Your task to perform on an android device: Open Google Maps Image 0: 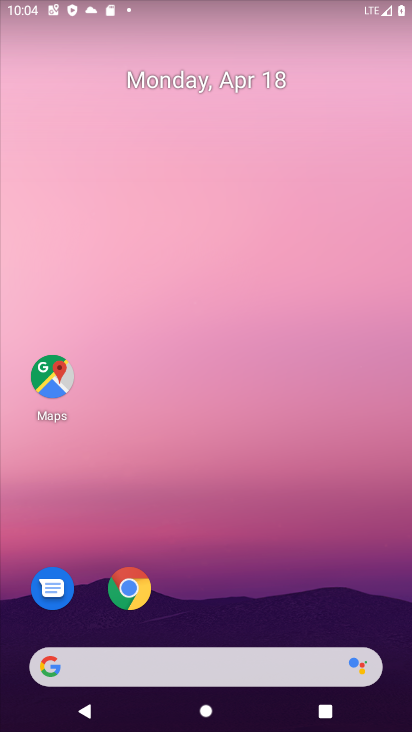
Step 0: click (53, 378)
Your task to perform on an android device: Open Google Maps Image 1: 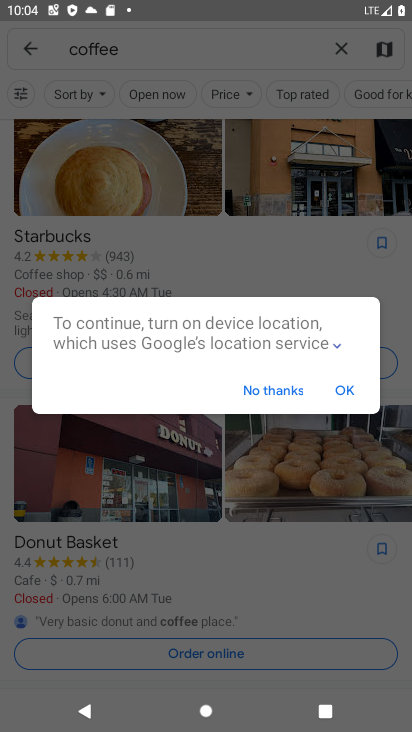
Step 1: click (345, 393)
Your task to perform on an android device: Open Google Maps Image 2: 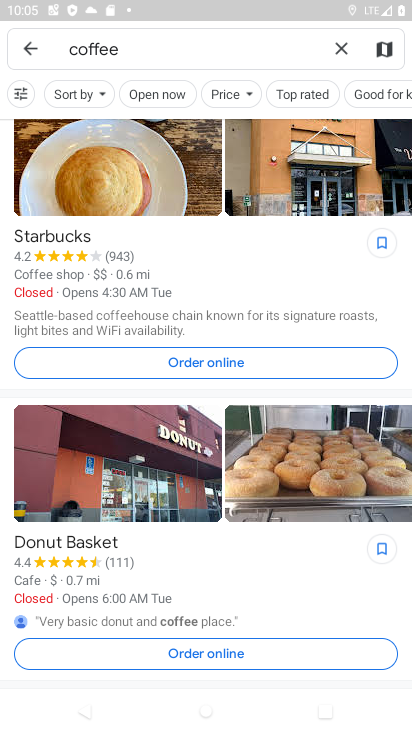
Step 2: task complete